Your task to perform on an android device: open a bookmark in the chrome app Image 0: 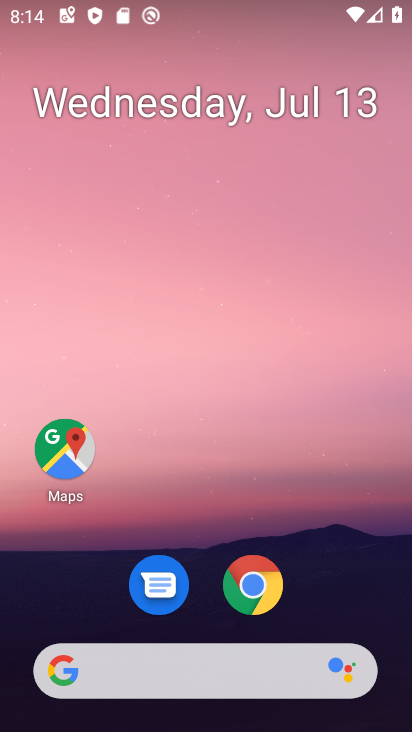
Step 0: click (256, 588)
Your task to perform on an android device: open a bookmark in the chrome app Image 1: 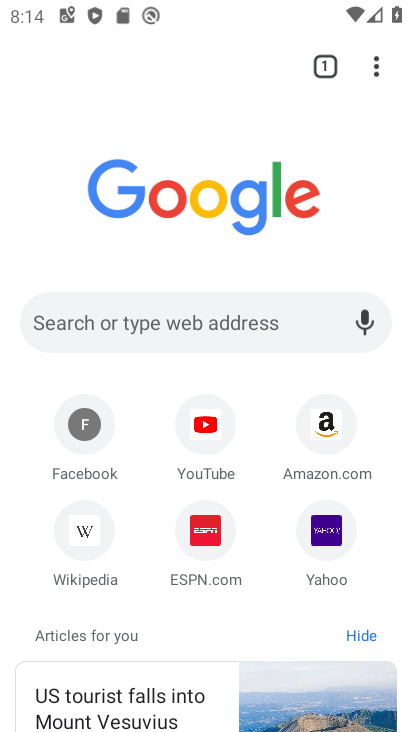
Step 1: click (375, 66)
Your task to perform on an android device: open a bookmark in the chrome app Image 2: 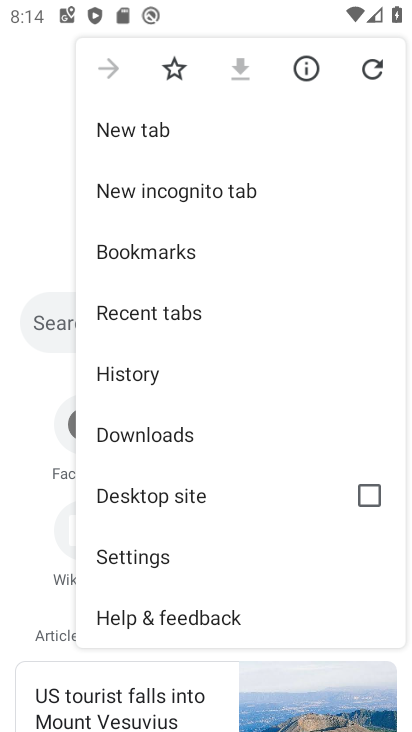
Step 2: click (183, 246)
Your task to perform on an android device: open a bookmark in the chrome app Image 3: 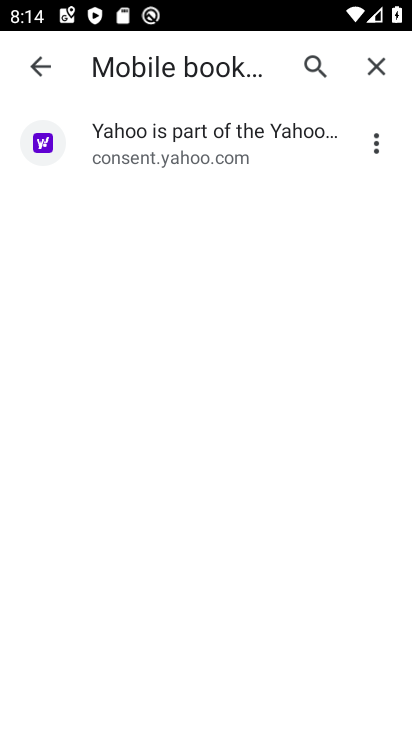
Step 3: click (191, 147)
Your task to perform on an android device: open a bookmark in the chrome app Image 4: 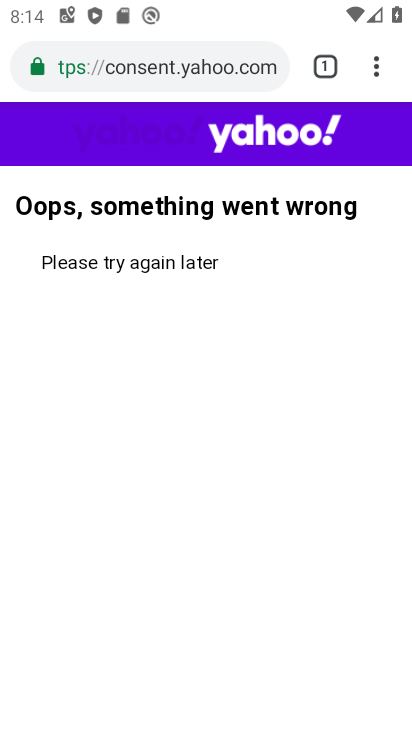
Step 4: task complete